Your task to perform on an android device: Open privacy settings Image 0: 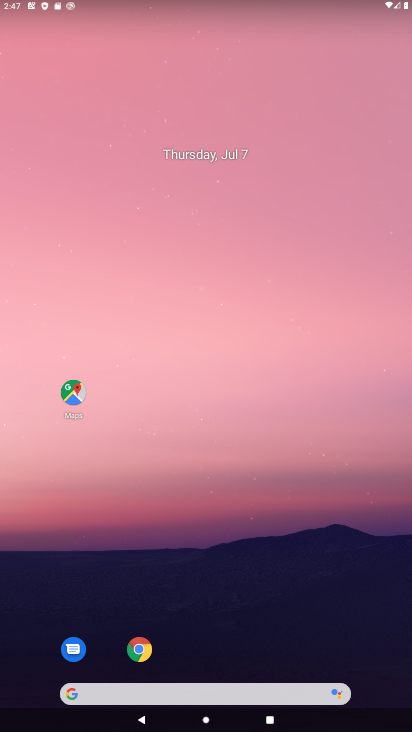
Step 0: drag from (293, 695) to (355, 0)
Your task to perform on an android device: Open privacy settings Image 1: 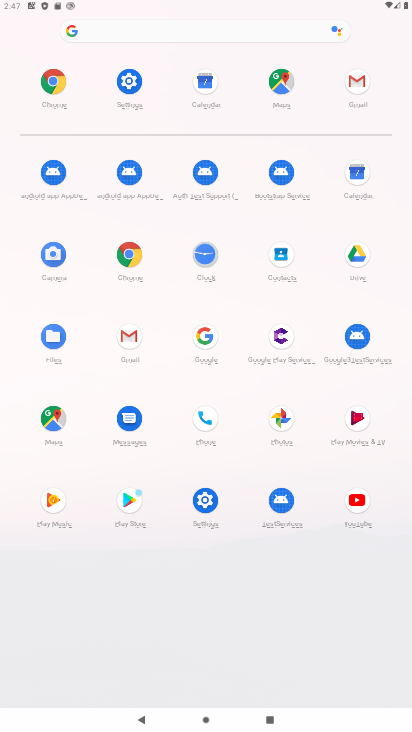
Step 1: click (119, 84)
Your task to perform on an android device: Open privacy settings Image 2: 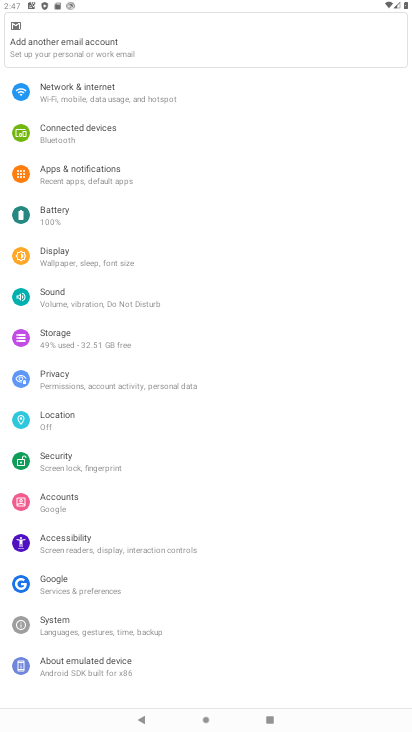
Step 2: click (165, 389)
Your task to perform on an android device: Open privacy settings Image 3: 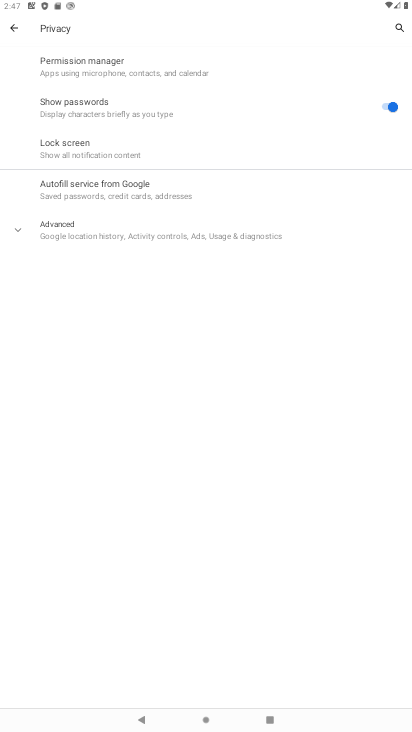
Step 3: task complete